Your task to perform on an android device: delete a single message in the gmail app Image 0: 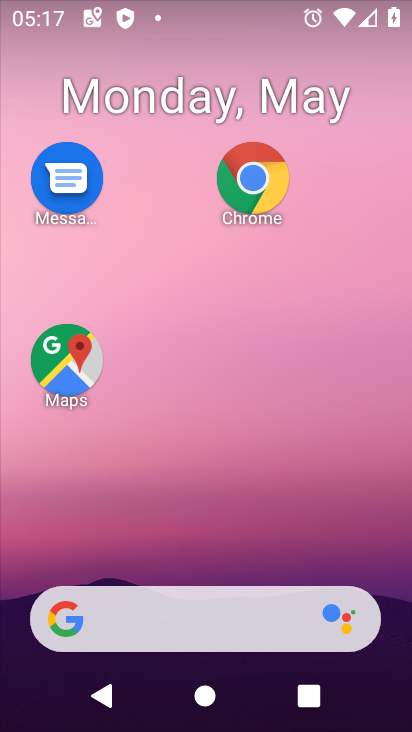
Step 0: drag from (169, 562) to (230, 9)
Your task to perform on an android device: delete a single message in the gmail app Image 1: 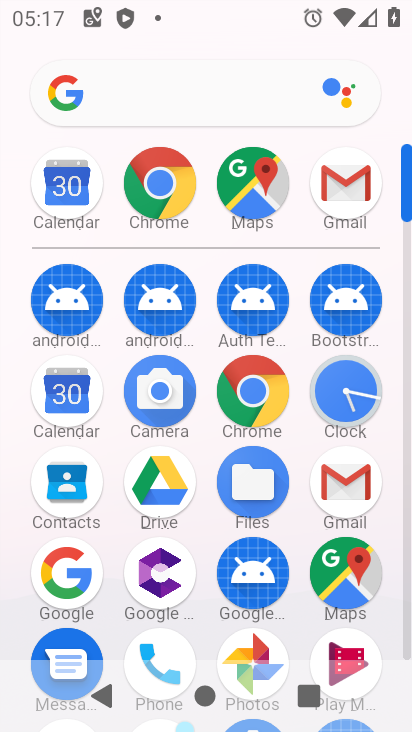
Step 1: click (352, 203)
Your task to perform on an android device: delete a single message in the gmail app Image 2: 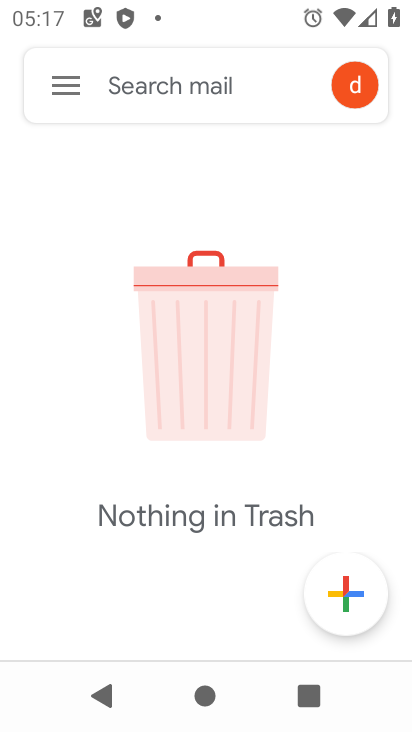
Step 2: click (74, 101)
Your task to perform on an android device: delete a single message in the gmail app Image 3: 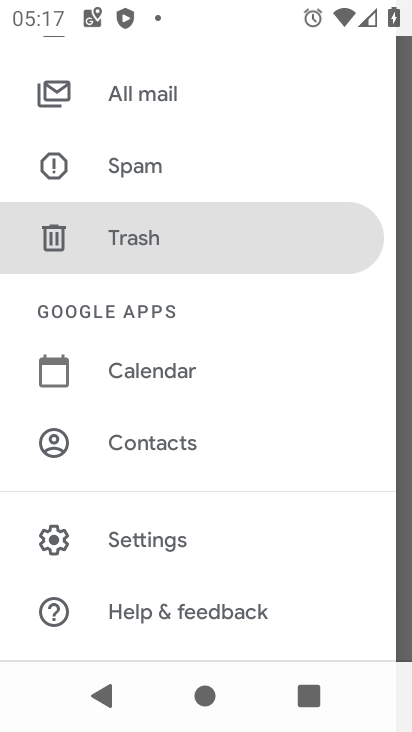
Step 3: click (141, 109)
Your task to perform on an android device: delete a single message in the gmail app Image 4: 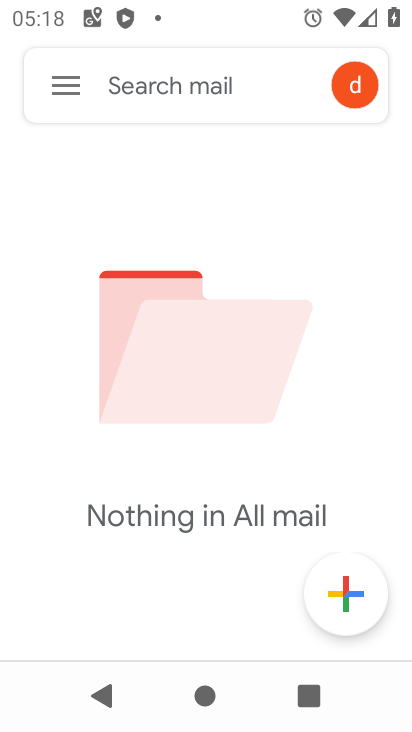
Step 4: task complete